Your task to perform on an android device: What's the latest video from GameSpot eSports? Image 0: 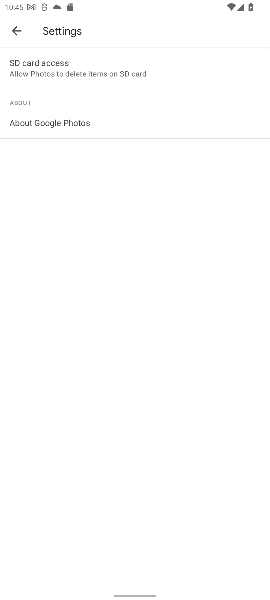
Step 0: press home button
Your task to perform on an android device: What's the latest video from GameSpot eSports? Image 1: 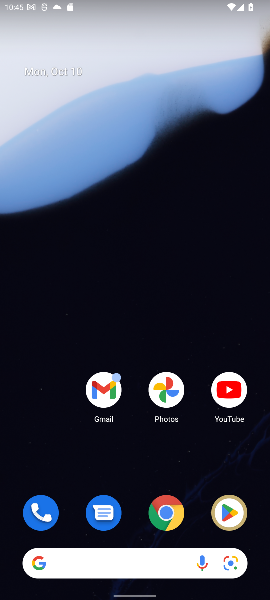
Step 1: click (126, 566)
Your task to perform on an android device: What's the latest video from GameSpot eSports? Image 2: 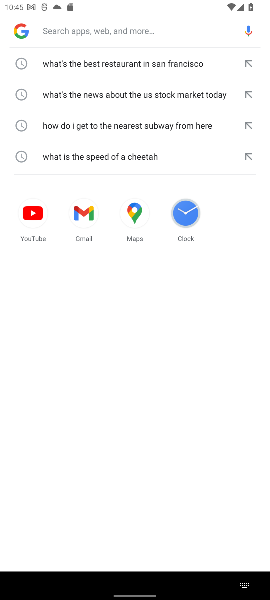
Step 2: type "What's the latest video from GameSpot eSports?"
Your task to perform on an android device: What's the latest video from GameSpot eSports? Image 3: 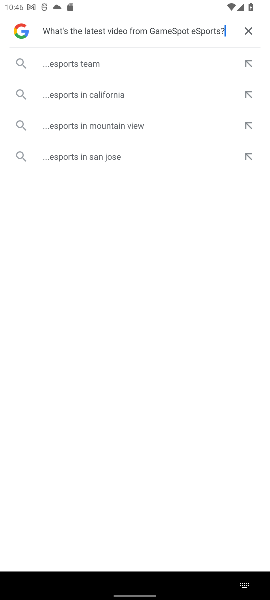
Step 3: click (76, 67)
Your task to perform on an android device: What's the latest video from GameSpot eSports? Image 4: 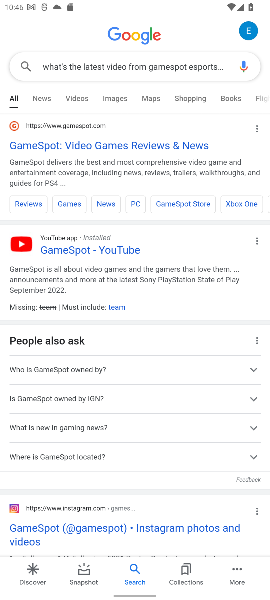
Step 4: task complete